Your task to perform on an android device: Open eBay Image 0: 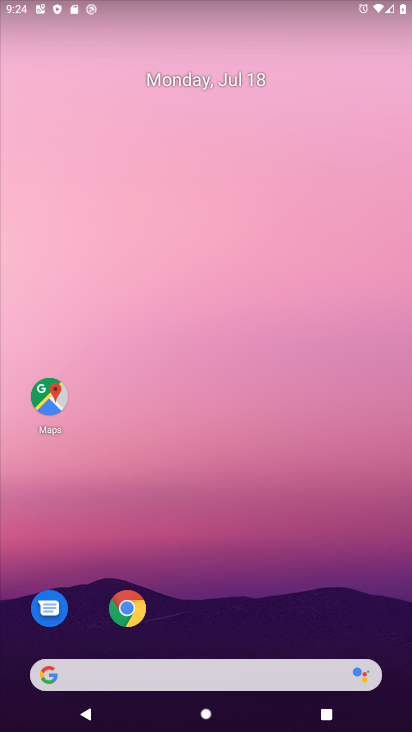
Step 0: click (79, 665)
Your task to perform on an android device: Open eBay Image 1: 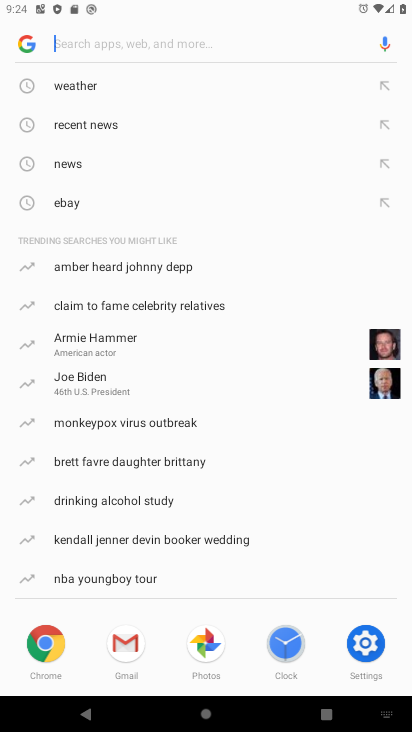
Step 1: type "eBay"
Your task to perform on an android device: Open eBay Image 2: 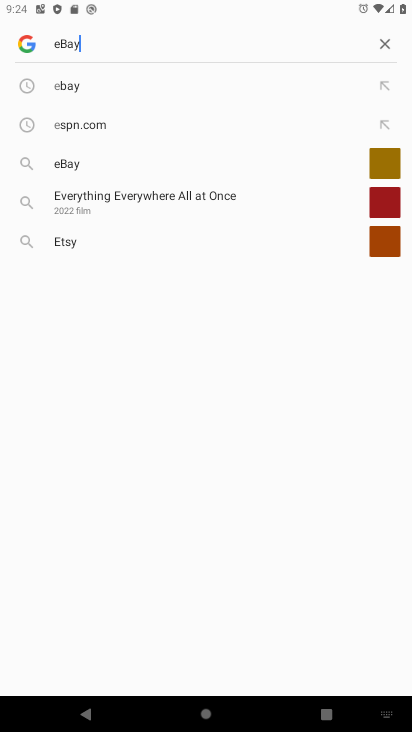
Step 2: type ""
Your task to perform on an android device: Open eBay Image 3: 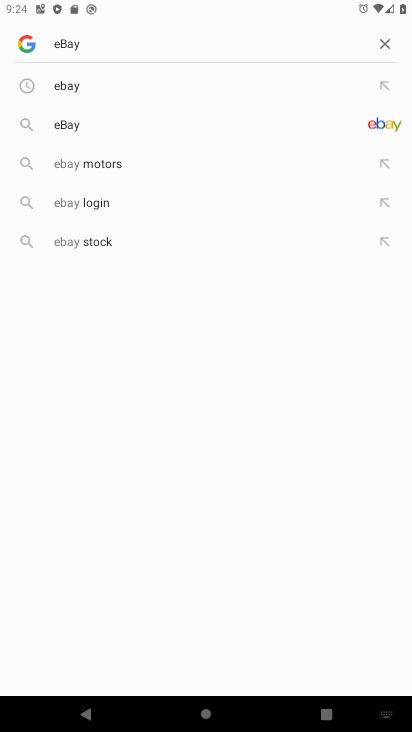
Step 3: click (50, 81)
Your task to perform on an android device: Open eBay Image 4: 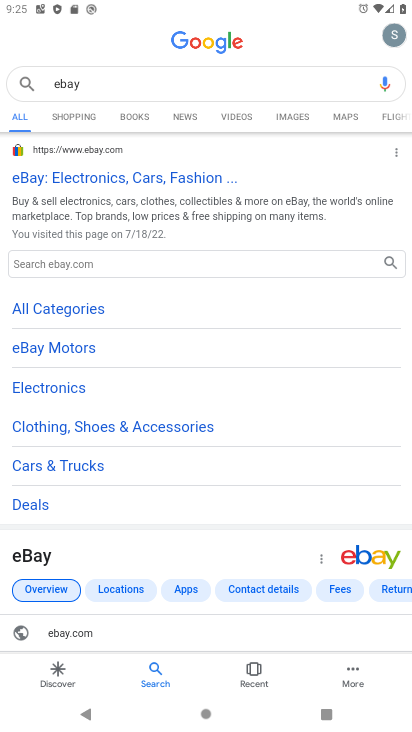
Step 4: task complete